Your task to perform on an android device: What's the weather? Image 0: 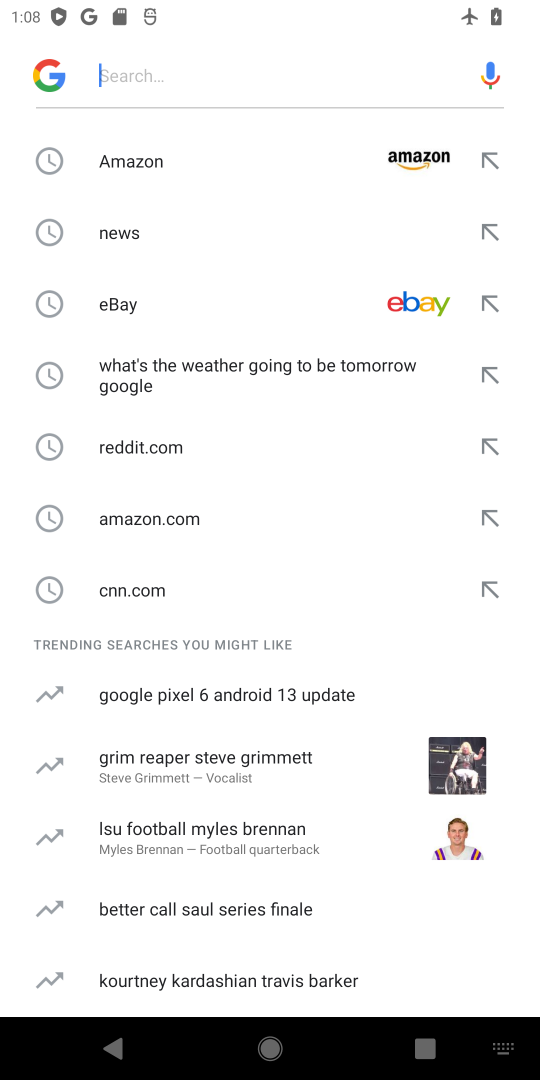
Step 0: press home button
Your task to perform on an android device: What's the weather? Image 1: 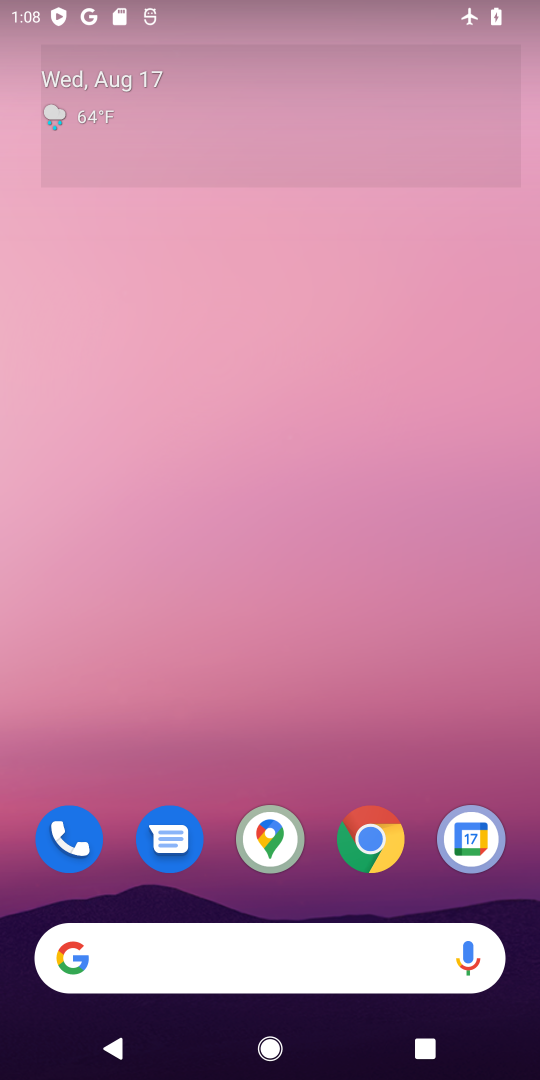
Step 1: drag from (265, 970) to (264, 182)
Your task to perform on an android device: What's the weather? Image 2: 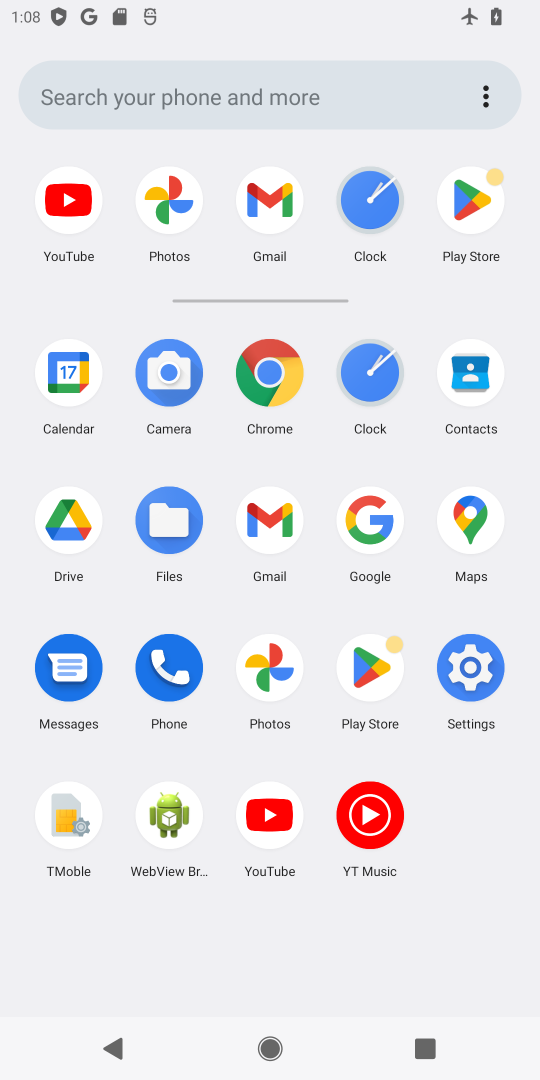
Step 2: click (364, 517)
Your task to perform on an android device: What's the weather? Image 3: 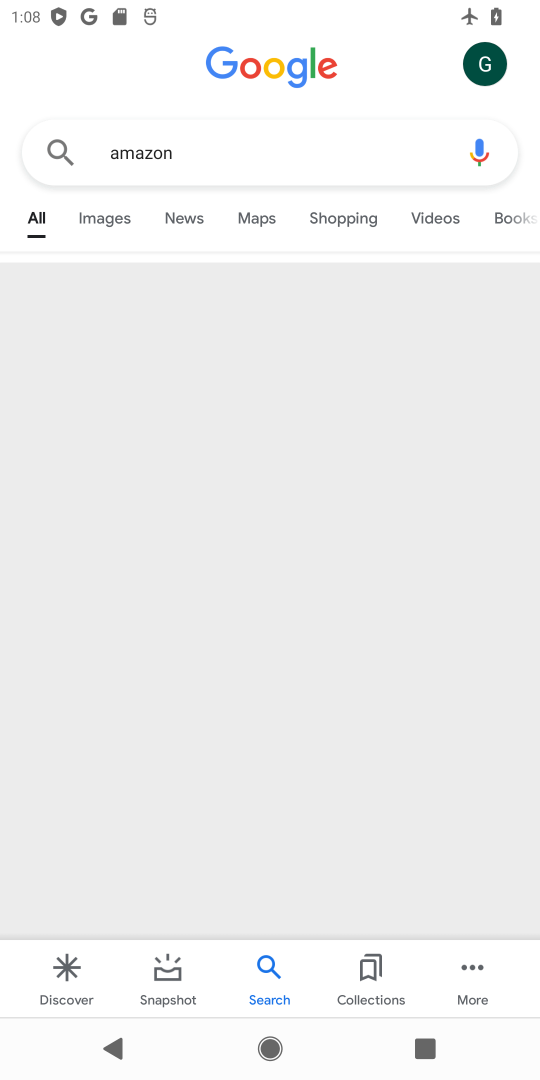
Step 3: click (295, 154)
Your task to perform on an android device: What's the weather? Image 4: 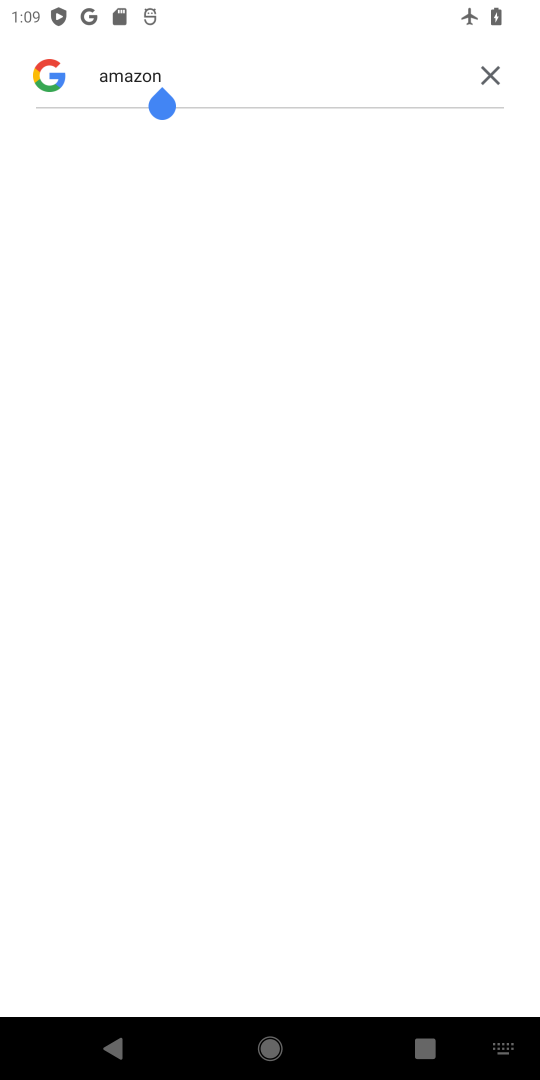
Step 4: click (485, 82)
Your task to perform on an android device: What's the weather? Image 5: 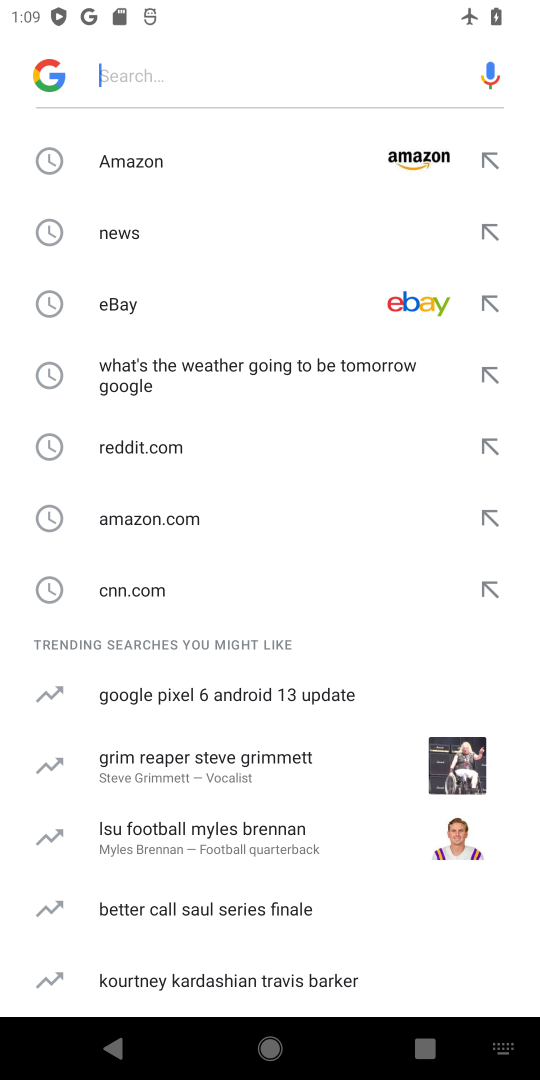
Step 5: type "What's the weather?"
Your task to perform on an android device: What's the weather? Image 6: 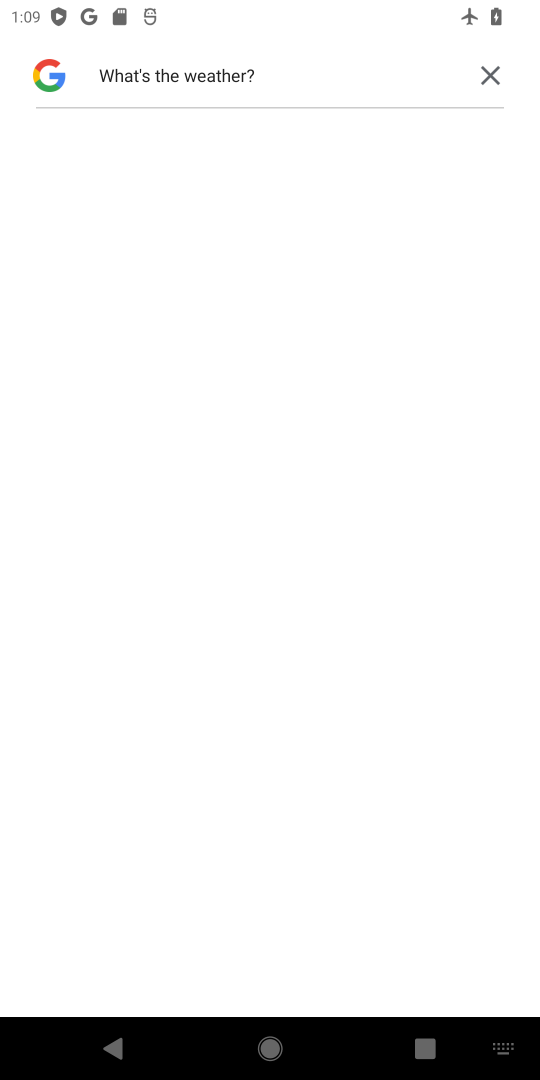
Step 6: task complete